Your task to perform on an android device: turn off wifi Image 0: 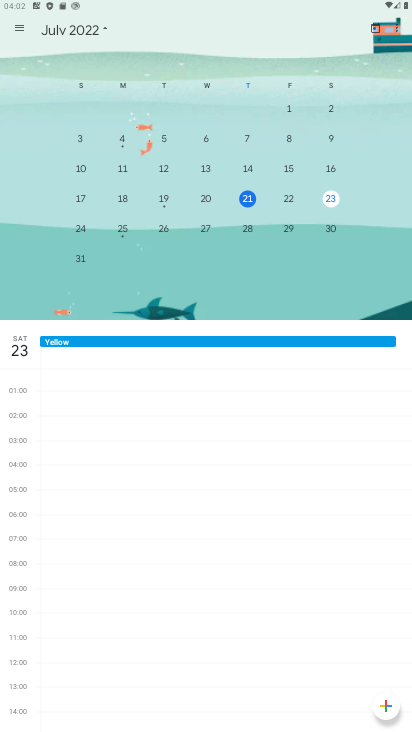
Step 0: press home button
Your task to perform on an android device: turn off wifi Image 1: 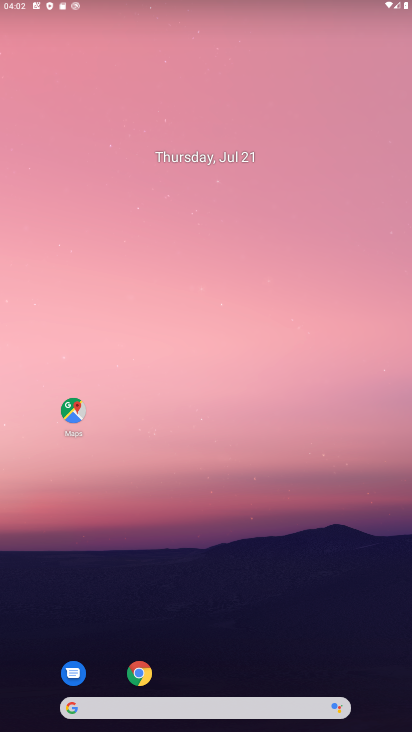
Step 1: drag from (144, 604) to (210, 156)
Your task to perform on an android device: turn off wifi Image 2: 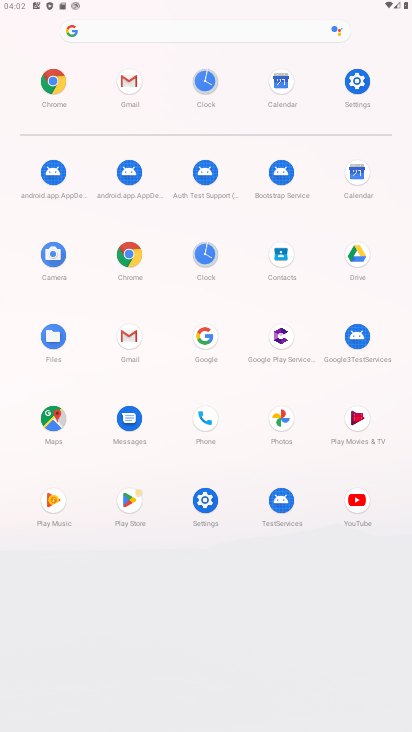
Step 2: click (362, 88)
Your task to perform on an android device: turn off wifi Image 3: 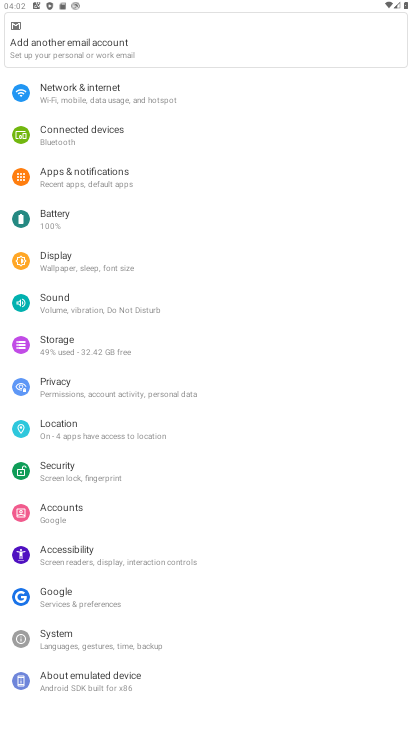
Step 3: click (105, 94)
Your task to perform on an android device: turn off wifi Image 4: 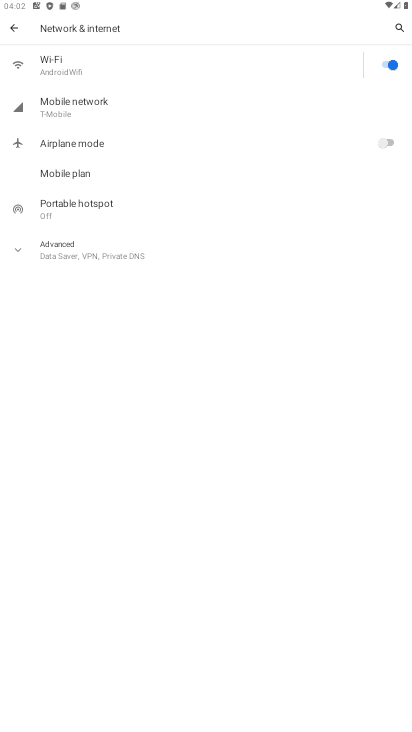
Step 4: click (123, 76)
Your task to perform on an android device: turn off wifi Image 5: 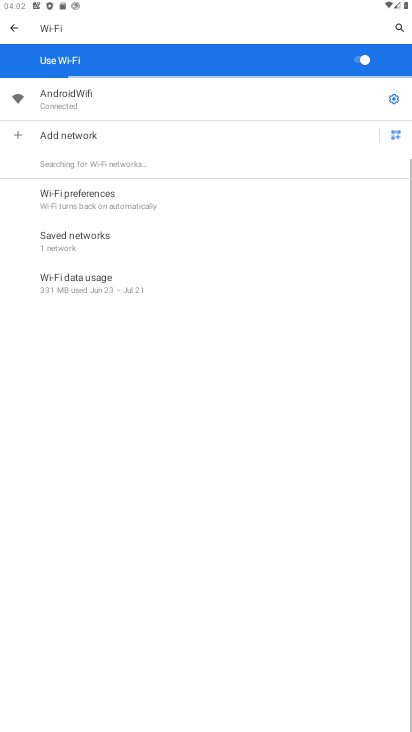
Step 5: click (365, 54)
Your task to perform on an android device: turn off wifi Image 6: 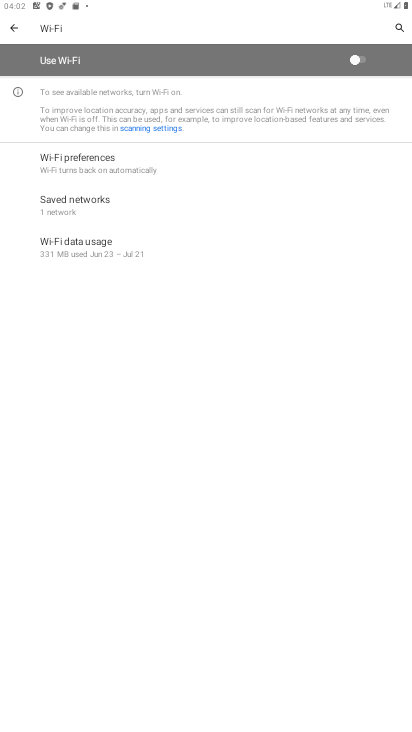
Step 6: task complete